Your task to perform on an android device: What is the recent news? Image 0: 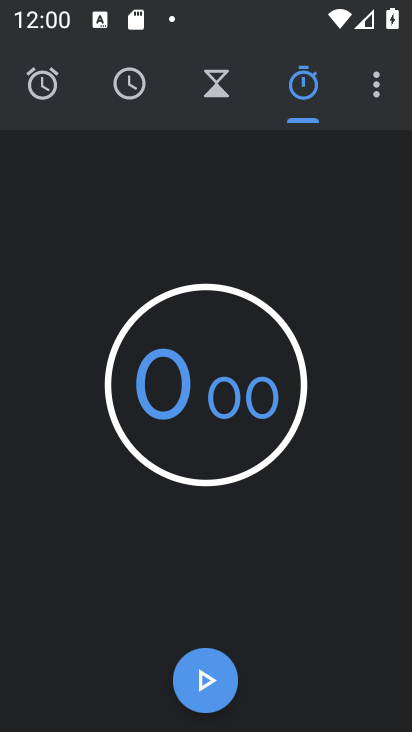
Step 0: press home button
Your task to perform on an android device: What is the recent news? Image 1: 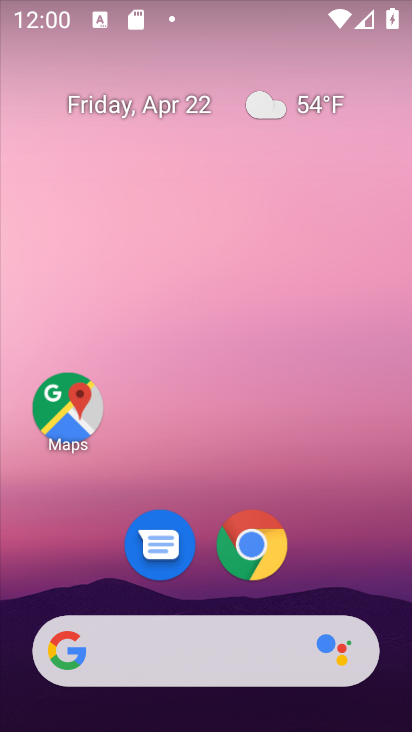
Step 1: drag from (196, 586) to (263, 206)
Your task to perform on an android device: What is the recent news? Image 2: 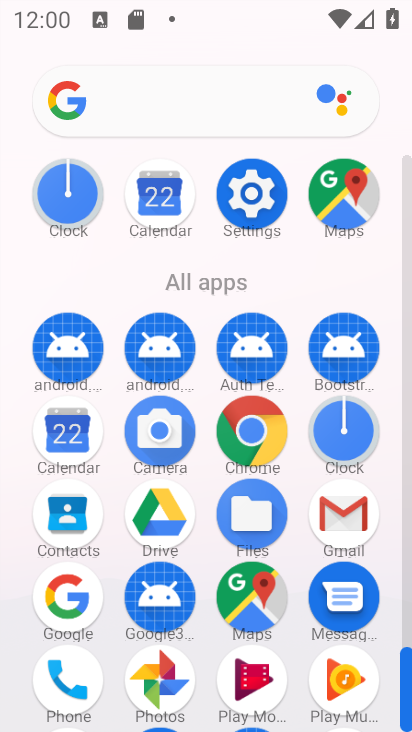
Step 2: click (44, 606)
Your task to perform on an android device: What is the recent news? Image 3: 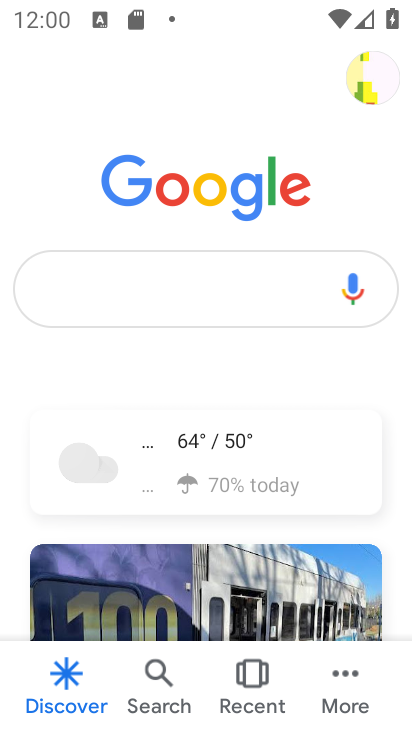
Step 3: task complete